Your task to perform on an android device: Open network settings Image 0: 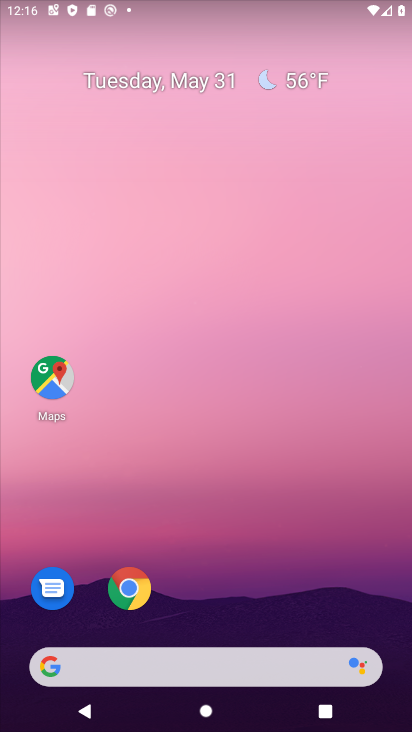
Step 0: drag from (192, 613) to (280, 58)
Your task to perform on an android device: Open network settings Image 1: 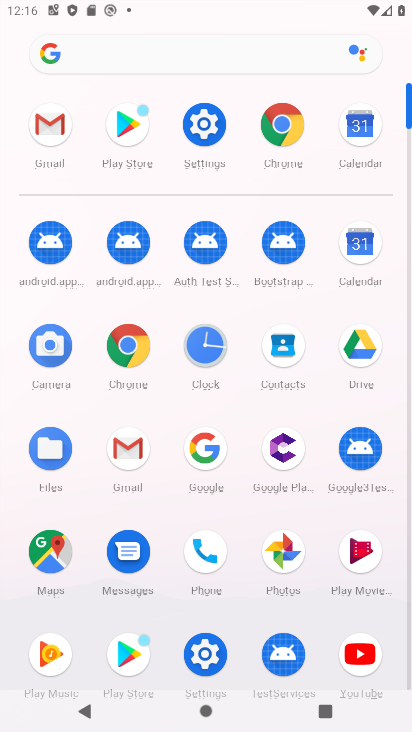
Step 1: click (196, 125)
Your task to perform on an android device: Open network settings Image 2: 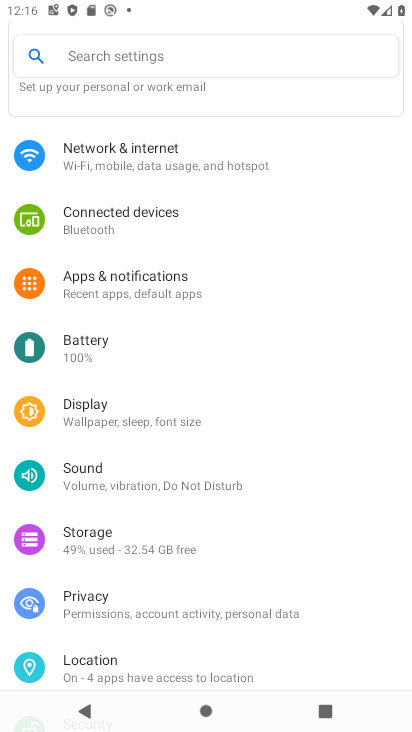
Step 2: click (162, 158)
Your task to perform on an android device: Open network settings Image 3: 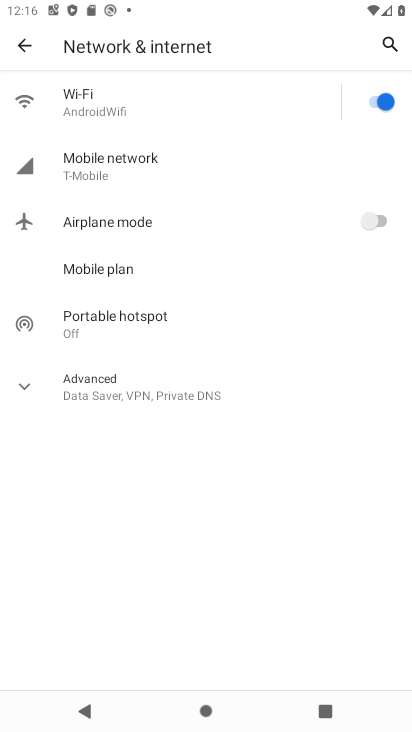
Step 3: task complete